Your task to perform on an android device: Add "dell alienware" to the cart on costco, then select checkout. Image 0: 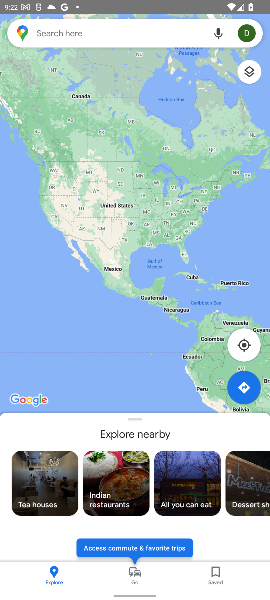
Step 0: press home button
Your task to perform on an android device: Add "dell alienware" to the cart on costco, then select checkout. Image 1: 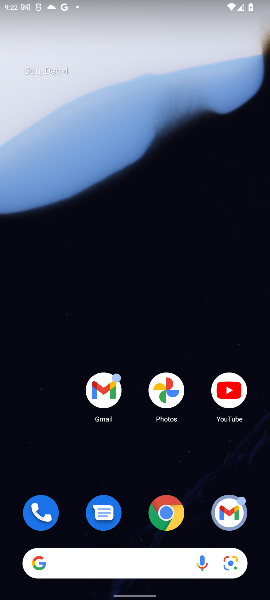
Step 1: click (163, 508)
Your task to perform on an android device: Add "dell alienware" to the cart on costco, then select checkout. Image 2: 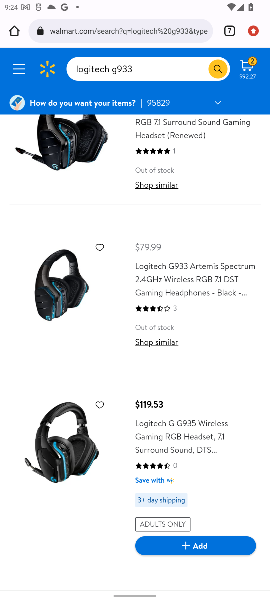
Step 2: task complete